Your task to perform on an android device: turn on the 12-hour format for clock Image 0: 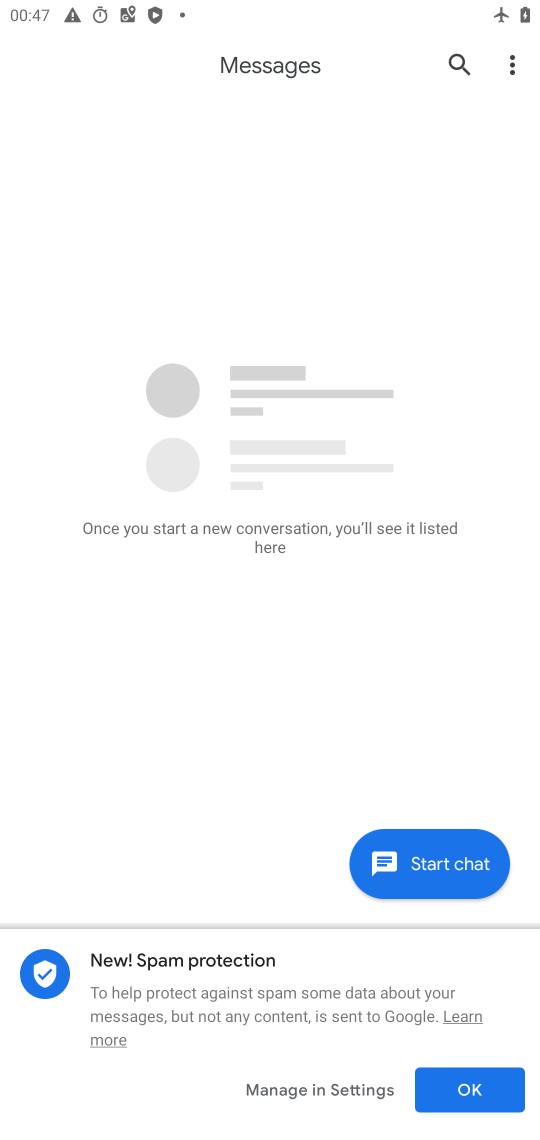
Step 0: press home button
Your task to perform on an android device: turn on the 12-hour format for clock Image 1: 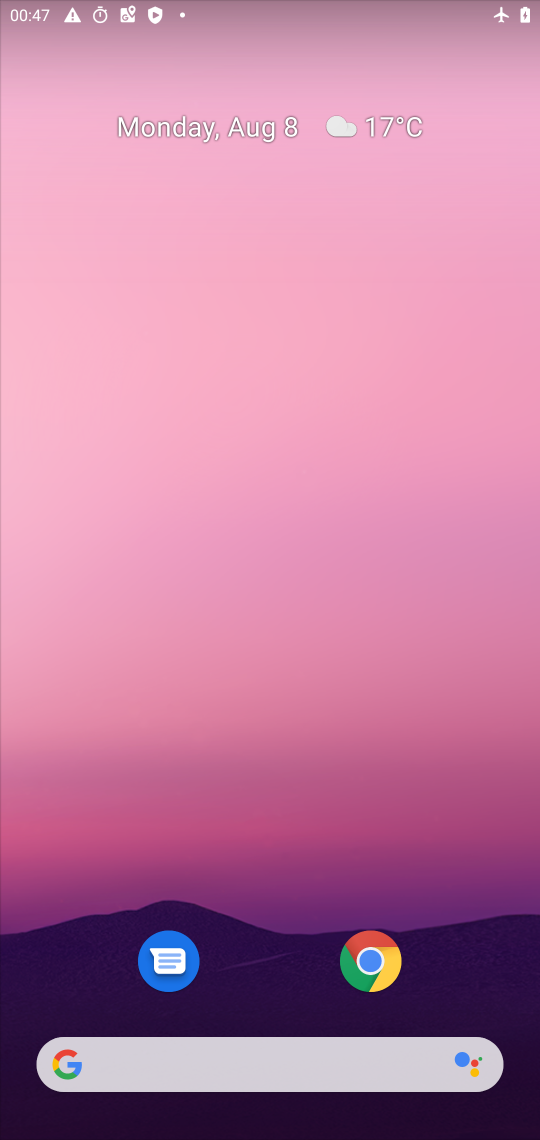
Step 1: drag from (292, 1074) to (274, 145)
Your task to perform on an android device: turn on the 12-hour format for clock Image 2: 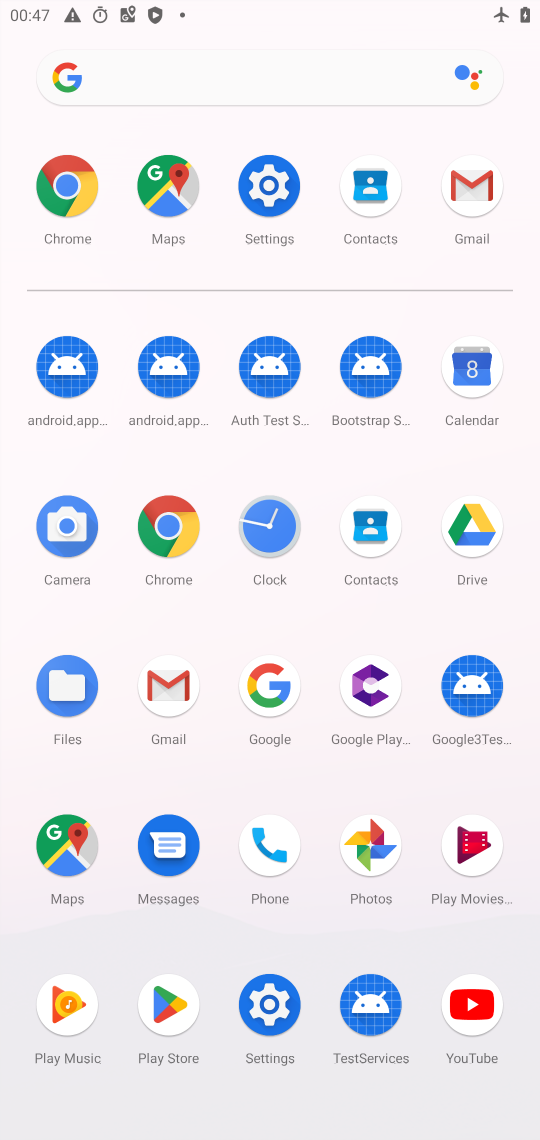
Step 2: click (276, 521)
Your task to perform on an android device: turn on the 12-hour format for clock Image 3: 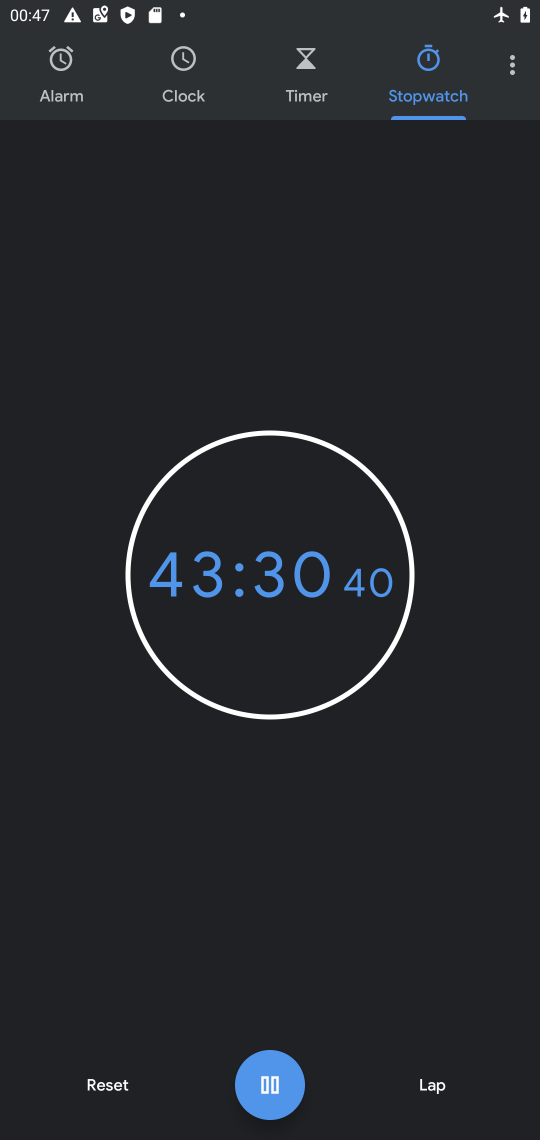
Step 3: click (511, 73)
Your task to perform on an android device: turn on the 12-hour format for clock Image 4: 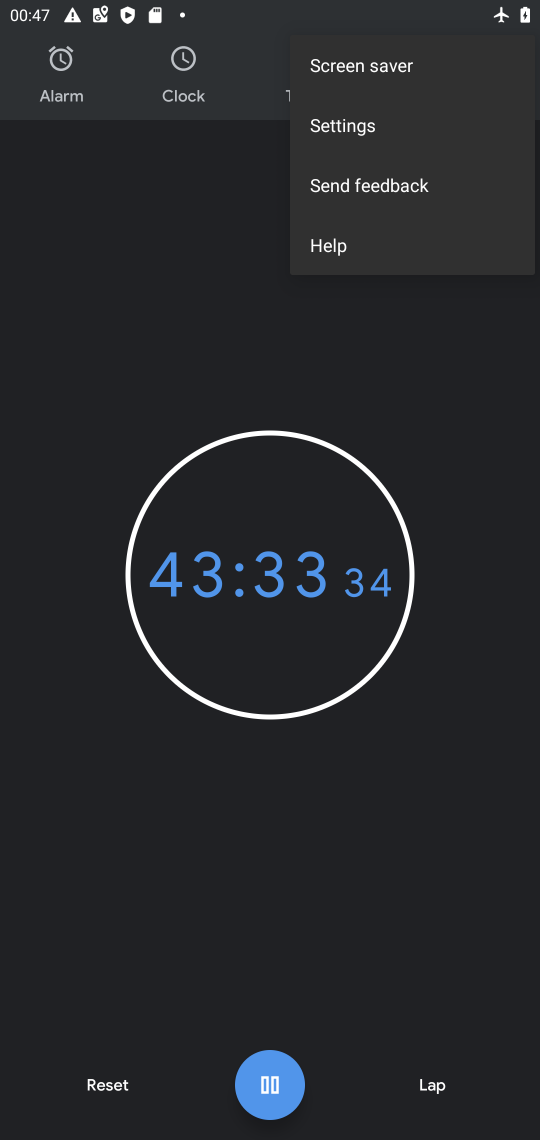
Step 4: click (350, 132)
Your task to perform on an android device: turn on the 12-hour format for clock Image 5: 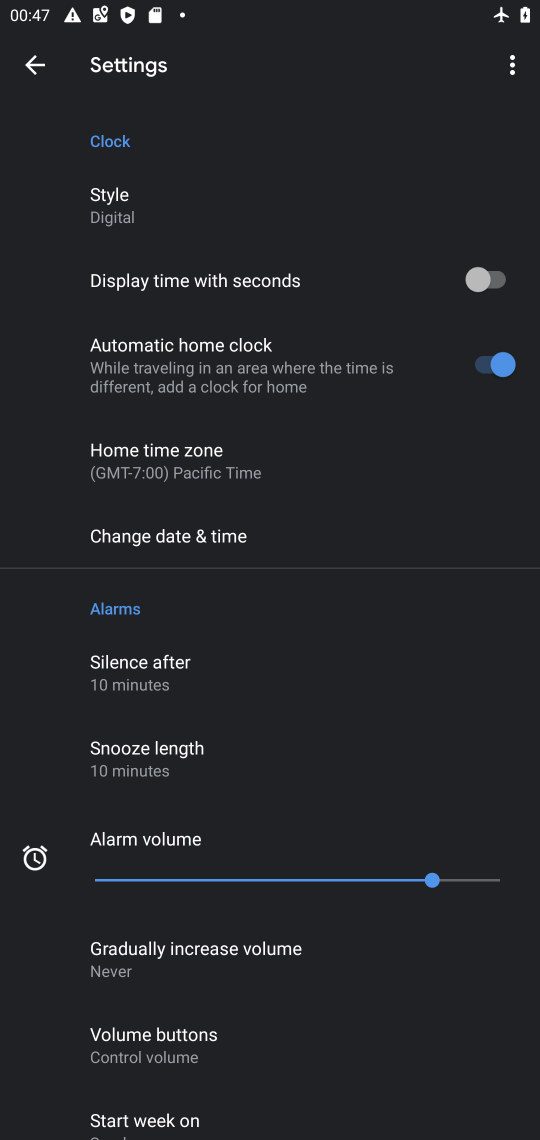
Step 5: click (246, 545)
Your task to perform on an android device: turn on the 12-hour format for clock Image 6: 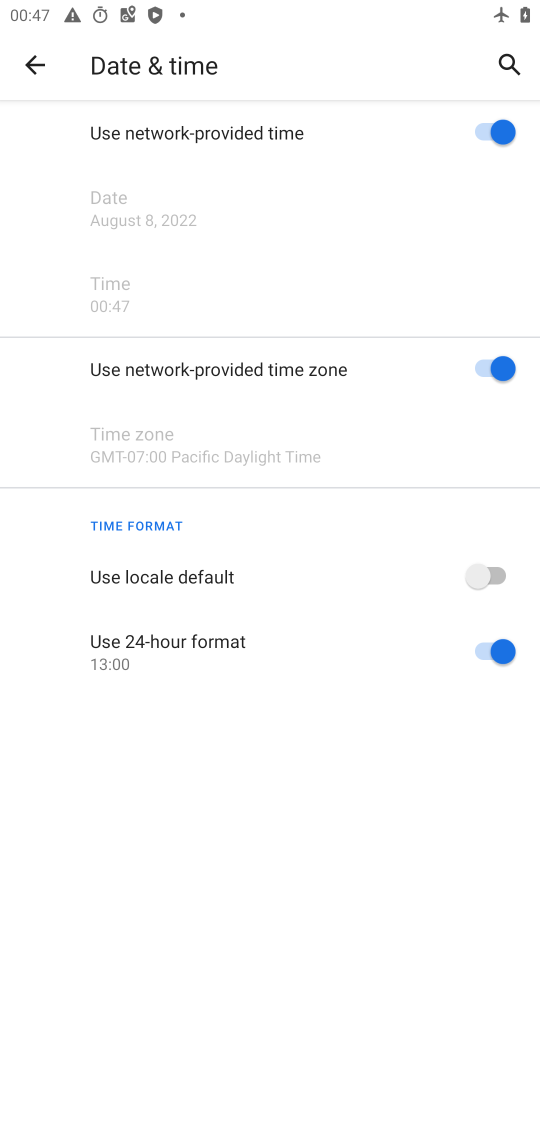
Step 6: click (492, 648)
Your task to perform on an android device: turn on the 12-hour format for clock Image 7: 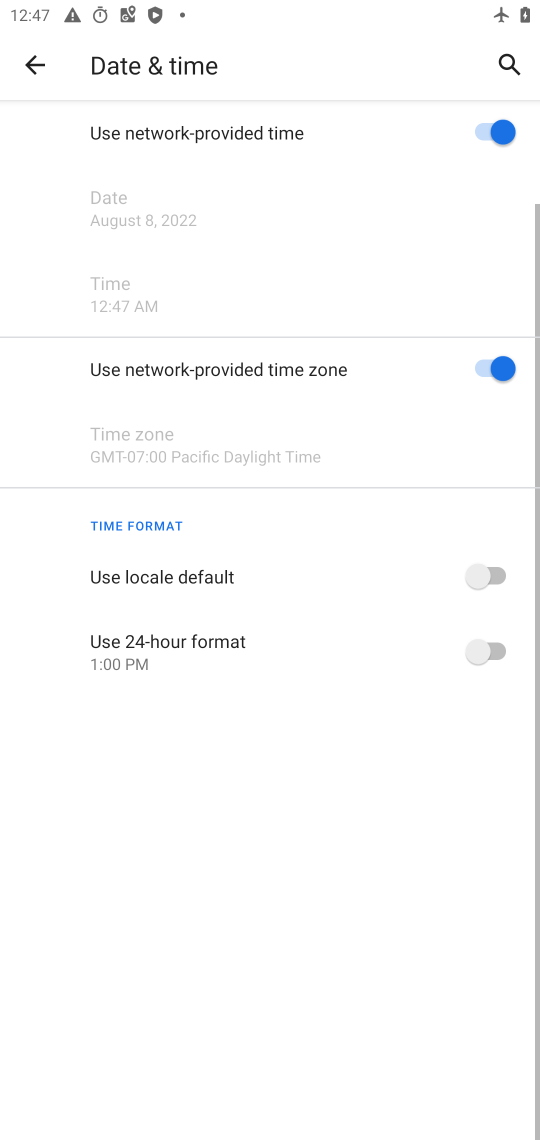
Step 7: task complete